Your task to perform on an android device: open wifi settings Image 0: 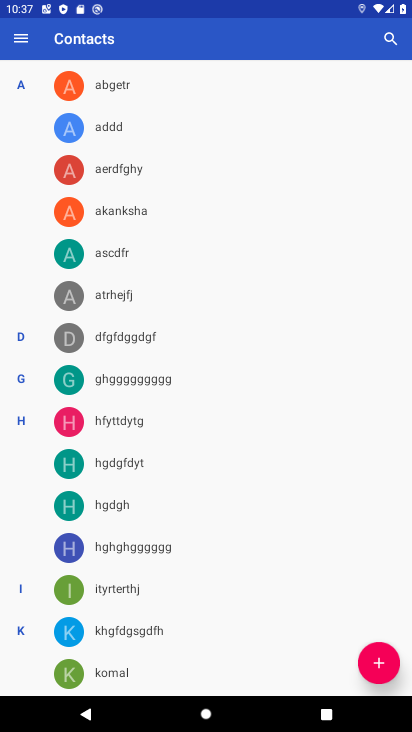
Step 0: press home button
Your task to perform on an android device: open wifi settings Image 1: 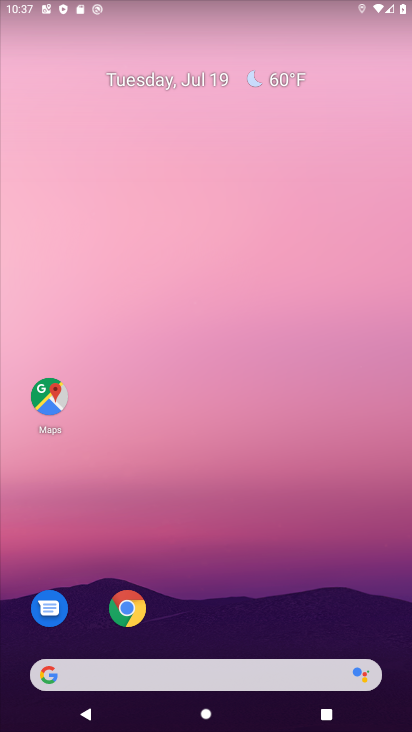
Step 1: drag from (205, 627) to (218, 7)
Your task to perform on an android device: open wifi settings Image 2: 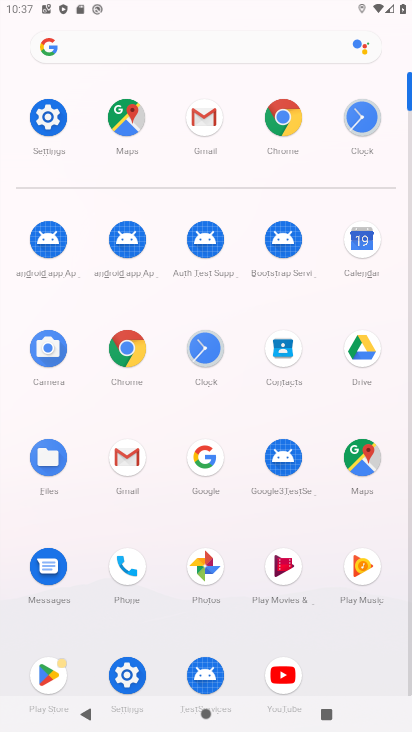
Step 2: click (51, 115)
Your task to perform on an android device: open wifi settings Image 3: 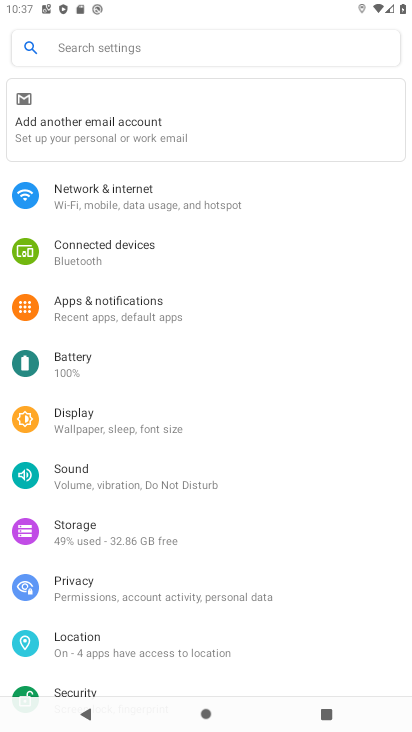
Step 3: click (151, 190)
Your task to perform on an android device: open wifi settings Image 4: 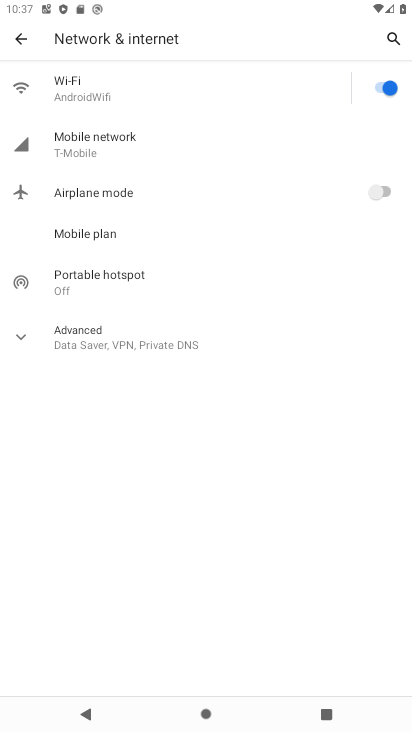
Step 4: click (131, 98)
Your task to perform on an android device: open wifi settings Image 5: 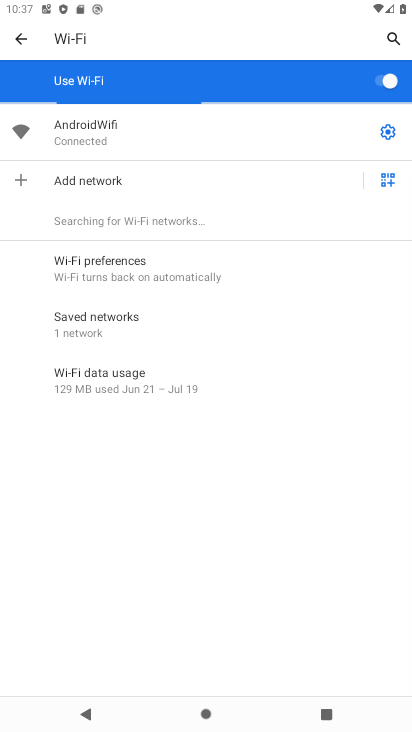
Step 5: task complete